Your task to perform on an android device: Open accessibility settings Image 0: 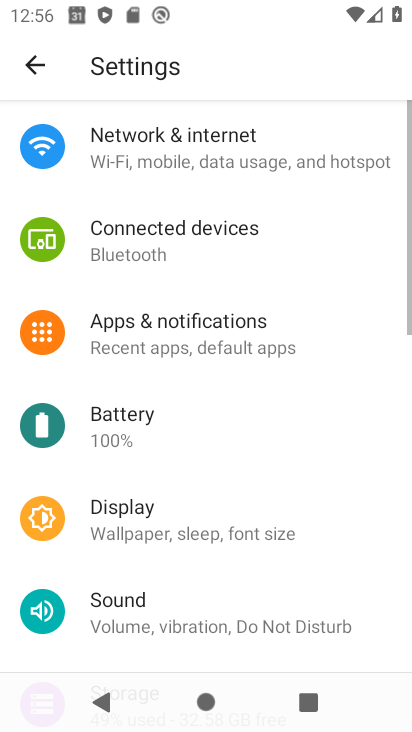
Step 0: drag from (173, 619) to (173, 207)
Your task to perform on an android device: Open accessibility settings Image 1: 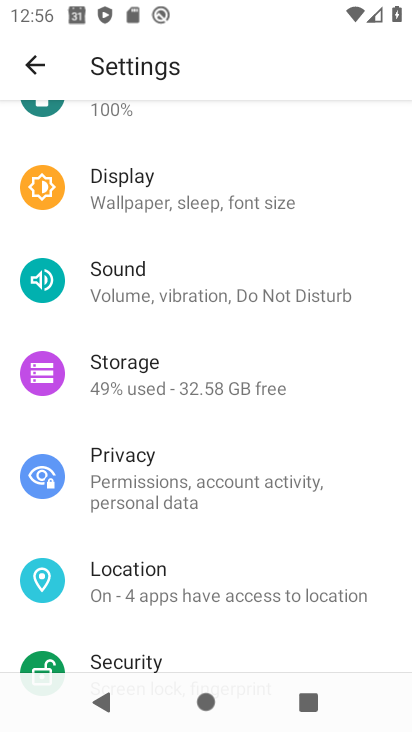
Step 1: drag from (211, 617) to (191, 251)
Your task to perform on an android device: Open accessibility settings Image 2: 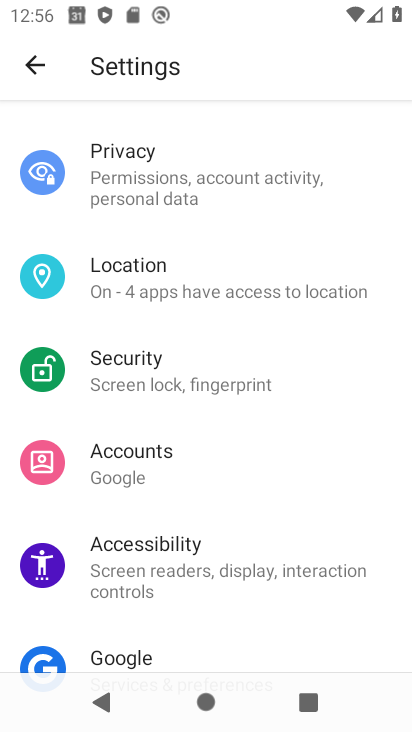
Step 2: click (152, 552)
Your task to perform on an android device: Open accessibility settings Image 3: 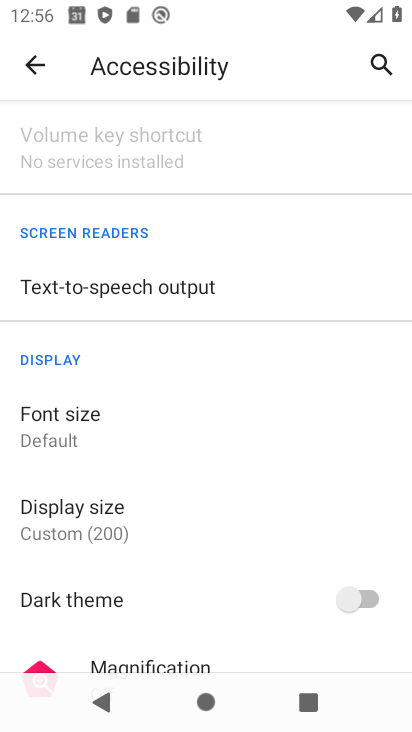
Step 3: task complete